Your task to perform on an android device: Search for a dining table on crateandbarrel.com Image 0: 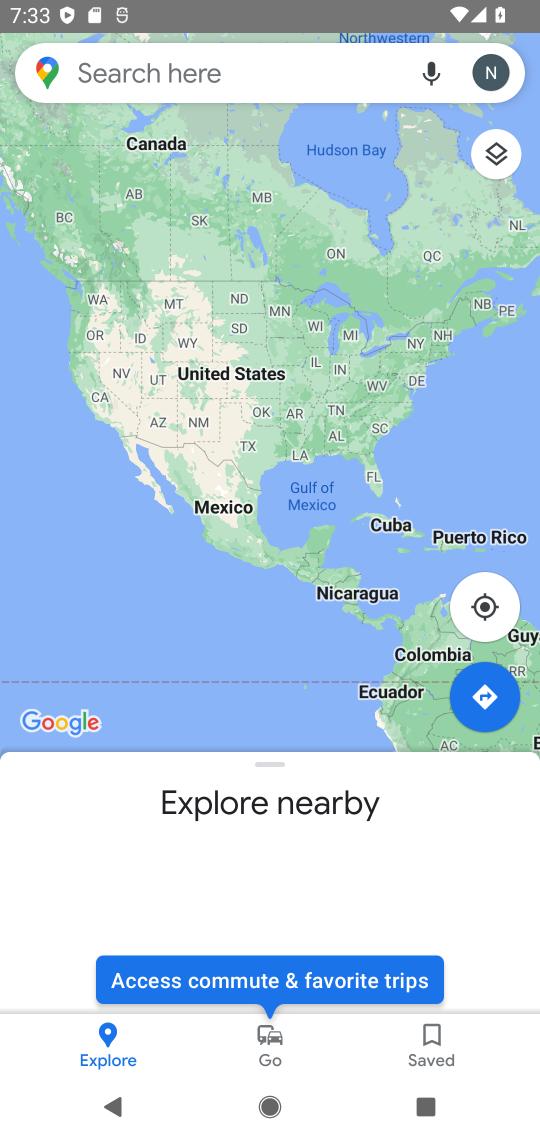
Step 0: press home button
Your task to perform on an android device: Search for a dining table on crateandbarrel.com Image 1: 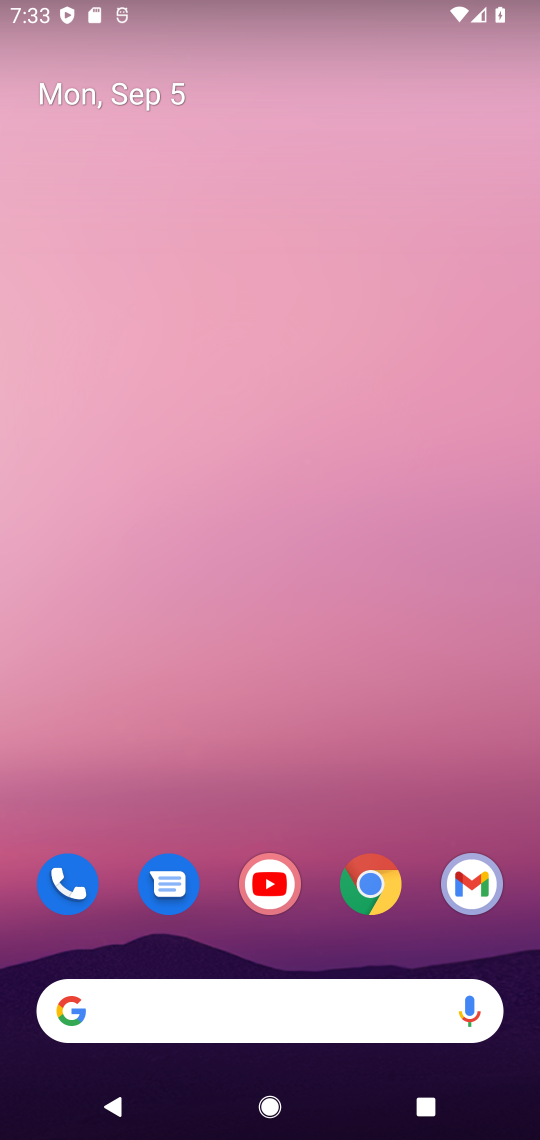
Step 1: click (381, 878)
Your task to perform on an android device: Search for a dining table on crateandbarrel.com Image 2: 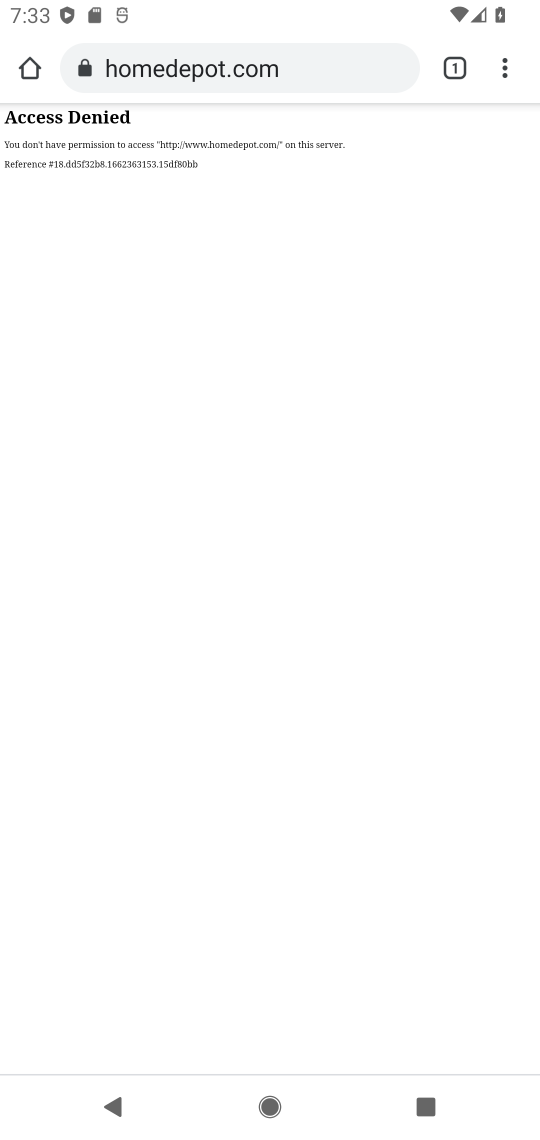
Step 2: click (166, 74)
Your task to perform on an android device: Search for a dining table on crateandbarrel.com Image 3: 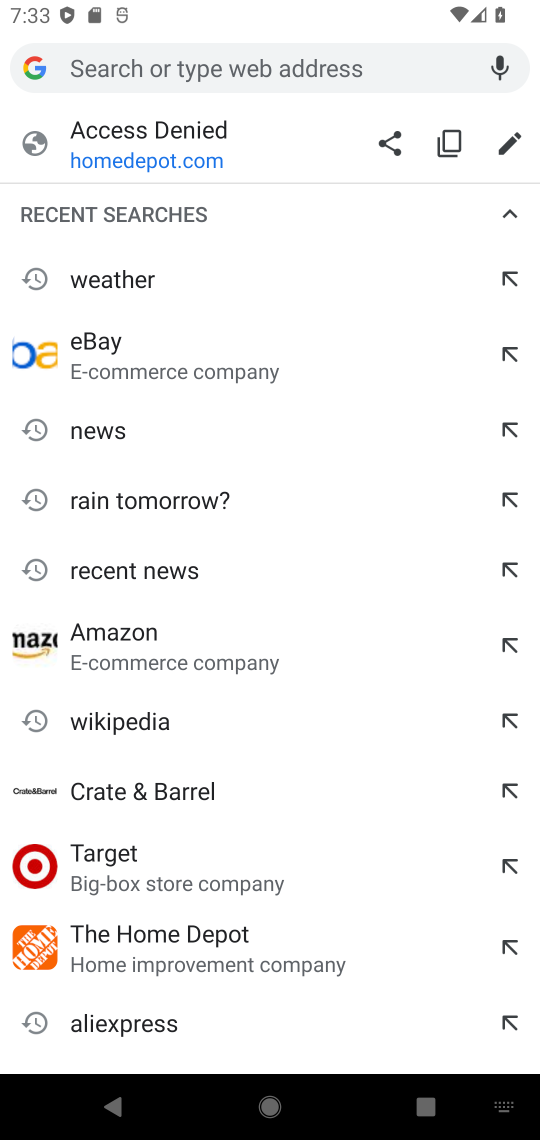
Step 3: type "crateandbarrel.com"
Your task to perform on an android device: Search for a dining table on crateandbarrel.com Image 4: 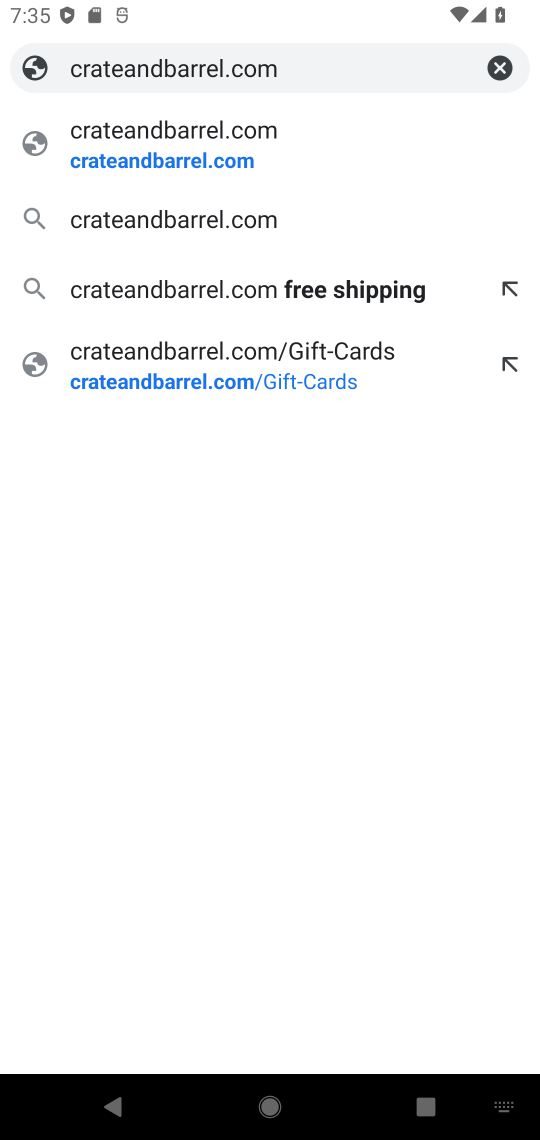
Step 4: click (235, 121)
Your task to perform on an android device: Search for a dining table on crateandbarrel.com Image 5: 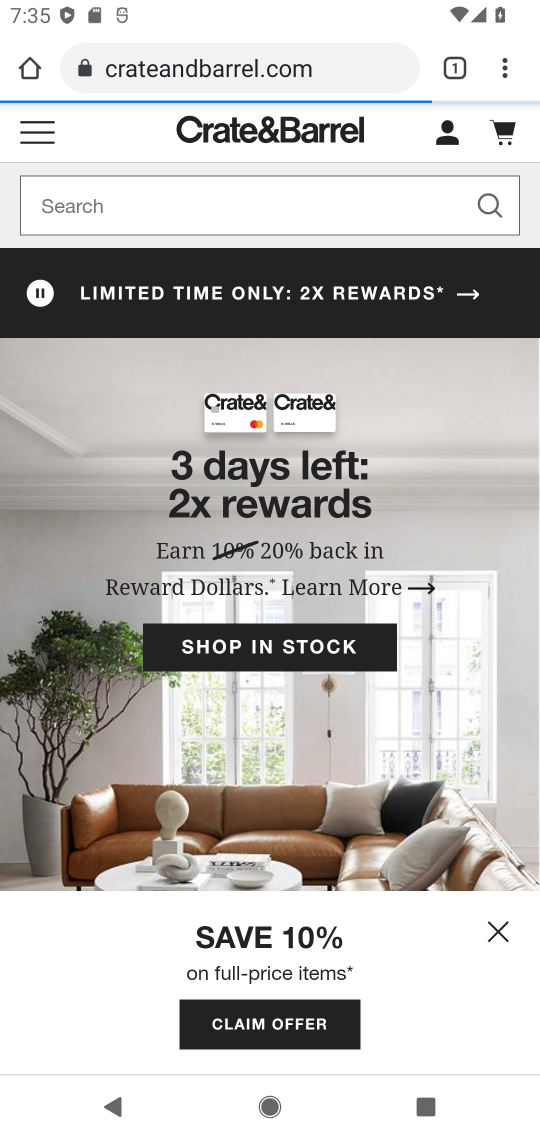
Step 5: click (265, 140)
Your task to perform on an android device: Search for a dining table on crateandbarrel.com Image 6: 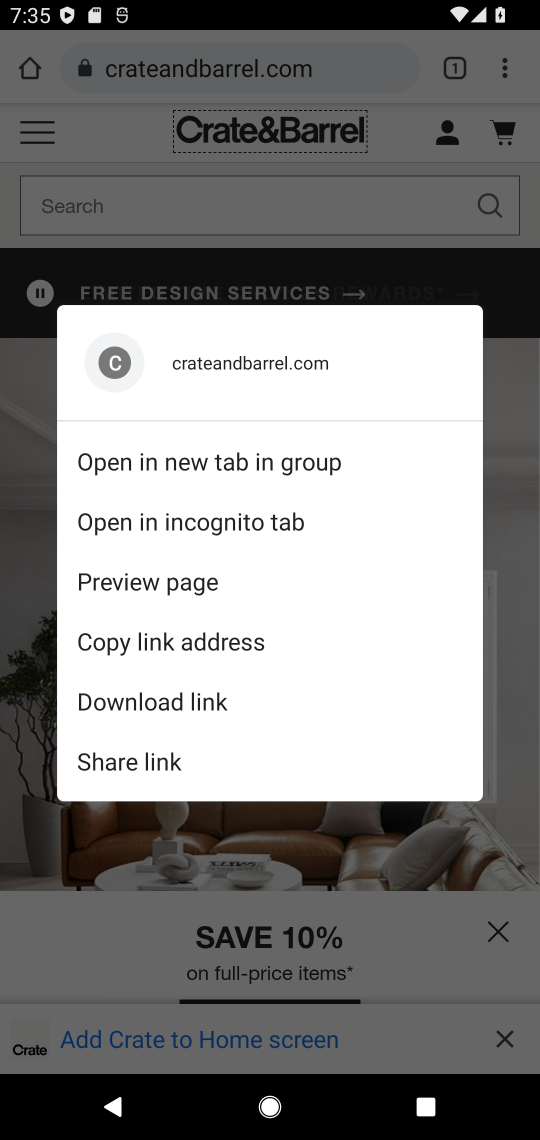
Step 6: click (519, 317)
Your task to perform on an android device: Search for a dining table on crateandbarrel.com Image 7: 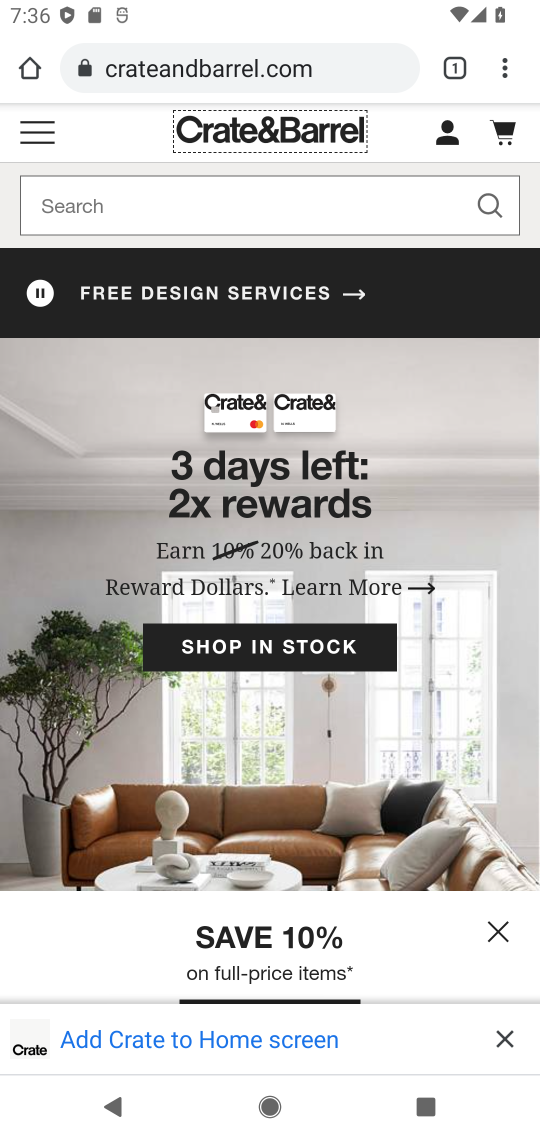
Step 7: click (347, 210)
Your task to perform on an android device: Search for a dining table on crateandbarrel.com Image 8: 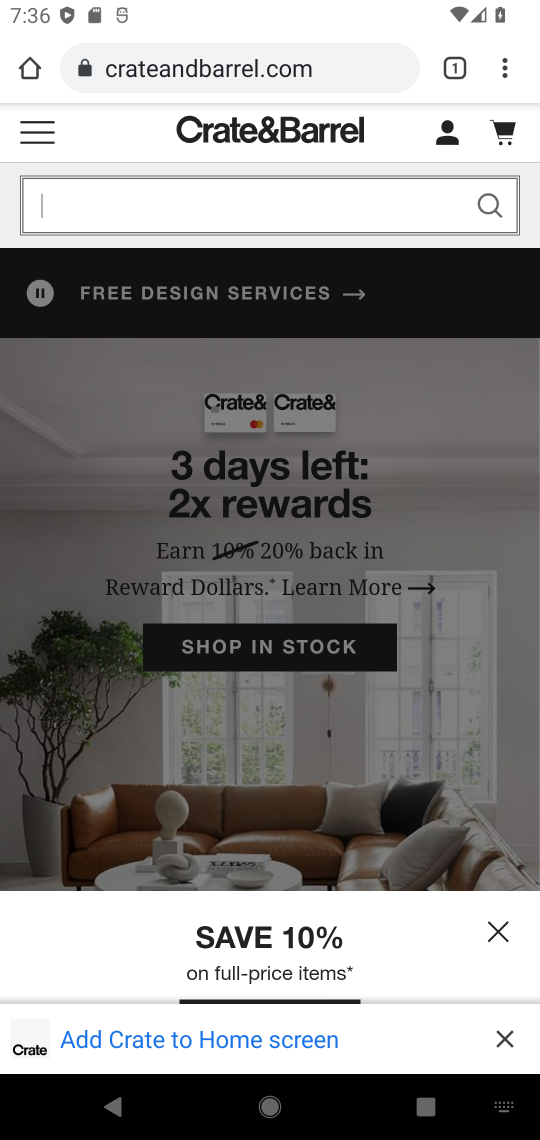
Step 8: click (117, 203)
Your task to perform on an android device: Search for a dining table on crateandbarrel.com Image 9: 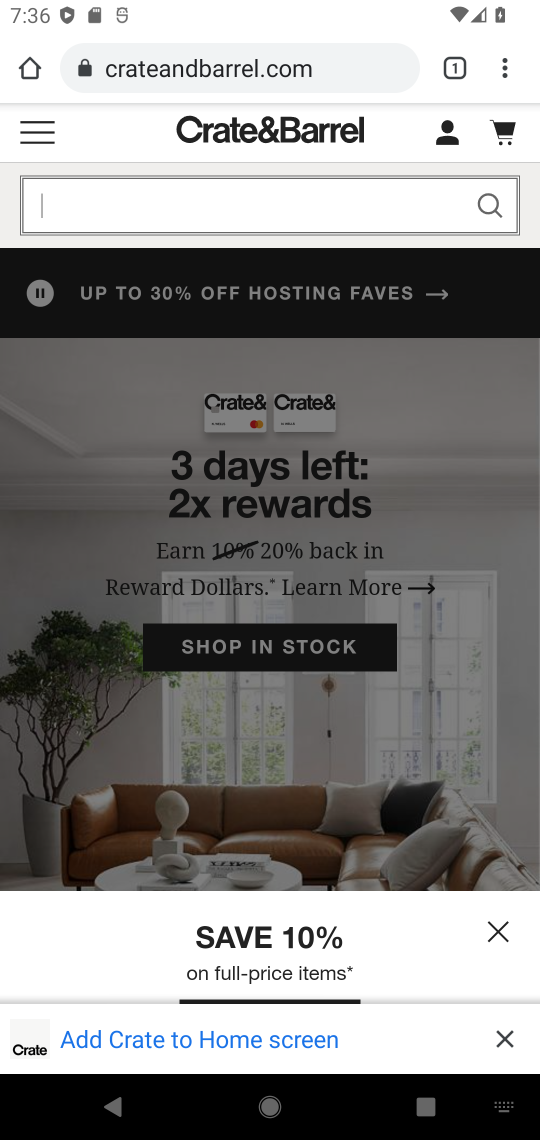
Step 9: click (112, 208)
Your task to perform on an android device: Search for a dining table on crateandbarrel.com Image 10: 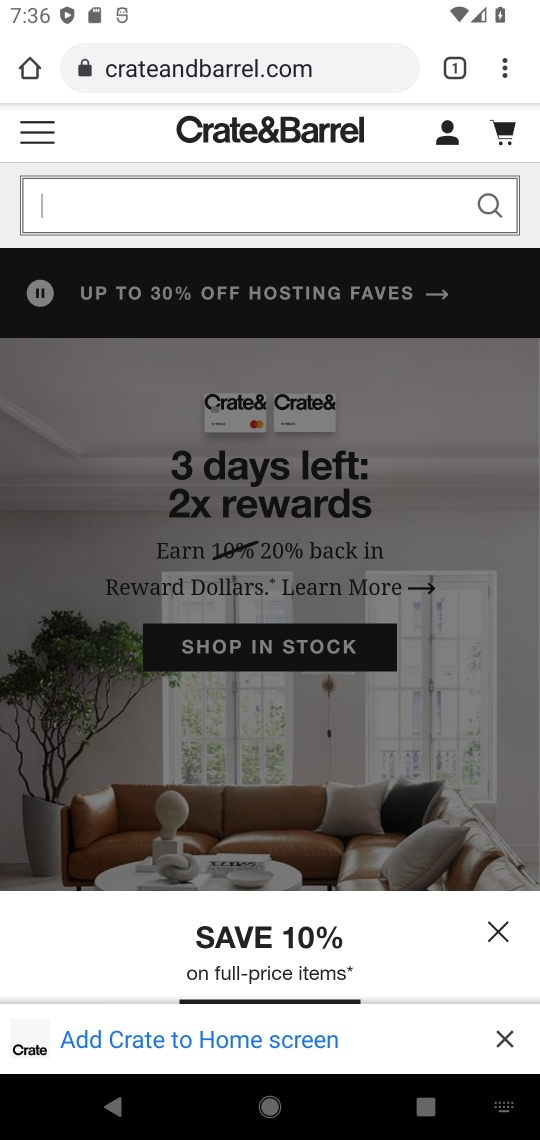
Step 10: type "dining table"
Your task to perform on an android device: Search for a dining table on crateandbarrel.com Image 11: 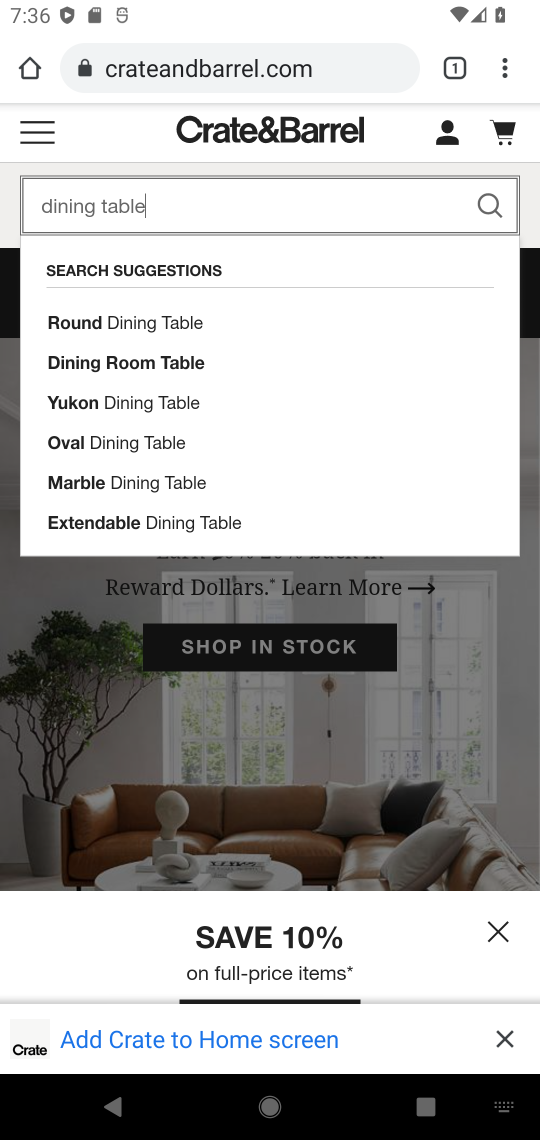
Step 11: click (499, 203)
Your task to perform on an android device: Search for a dining table on crateandbarrel.com Image 12: 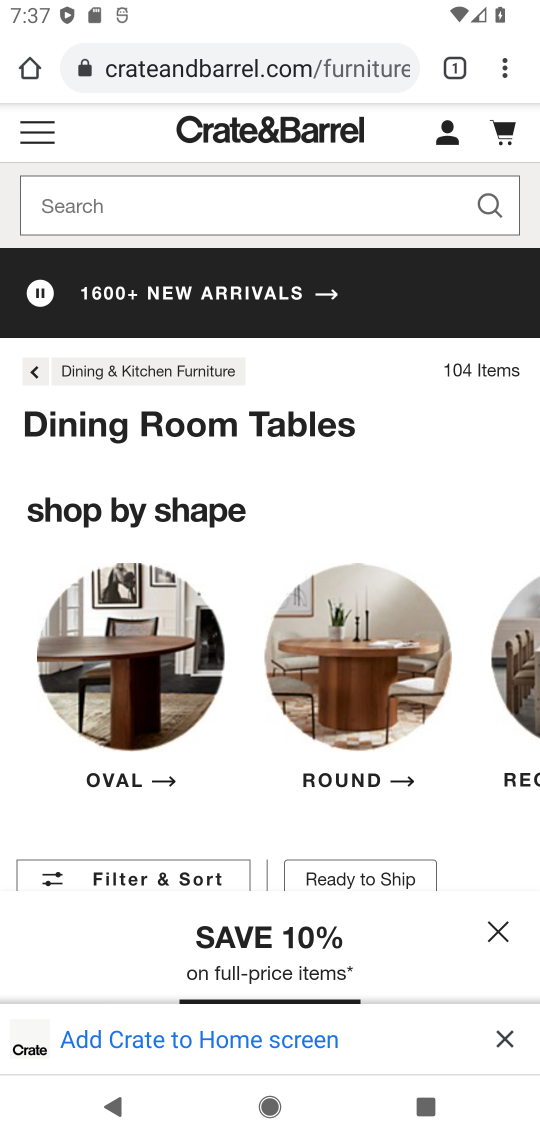
Step 12: task complete